Your task to perform on an android device: turn off priority inbox in the gmail app Image 0: 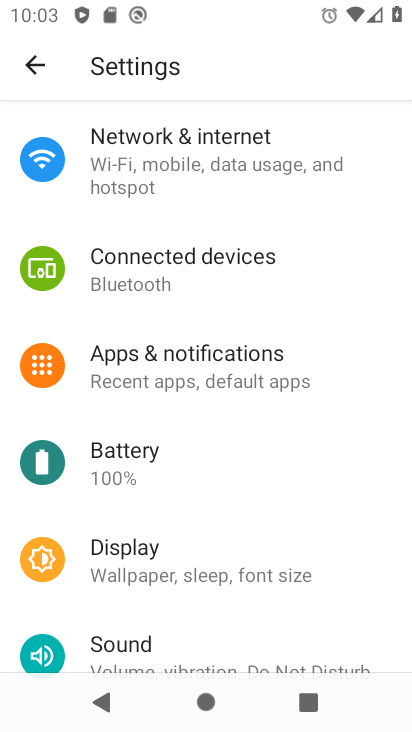
Step 0: press home button
Your task to perform on an android device: turn off priority inbox in the gmail app Image 1: 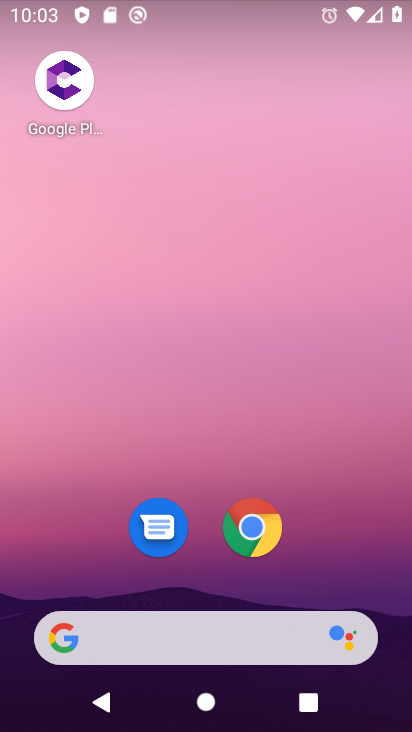
Step 1: drag from (219, 627) to (226, 163)
Your task to perform on an android device: turn off priority inbox in the gmail app Image 2: 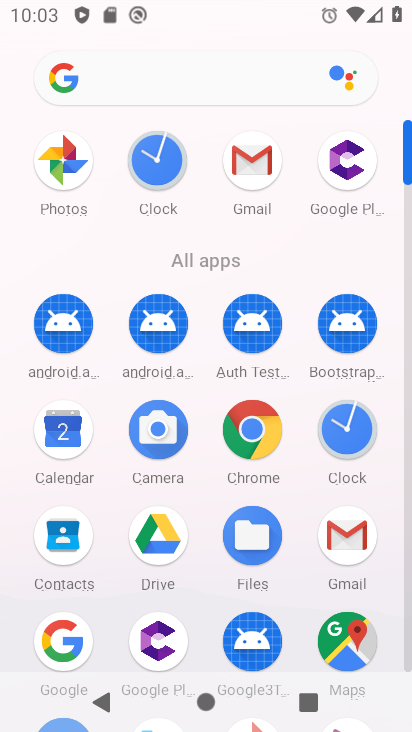
Step 2: click (253, 178)
Your task to perform on an android device: turn off priority inbox in the gmail app Image 3: 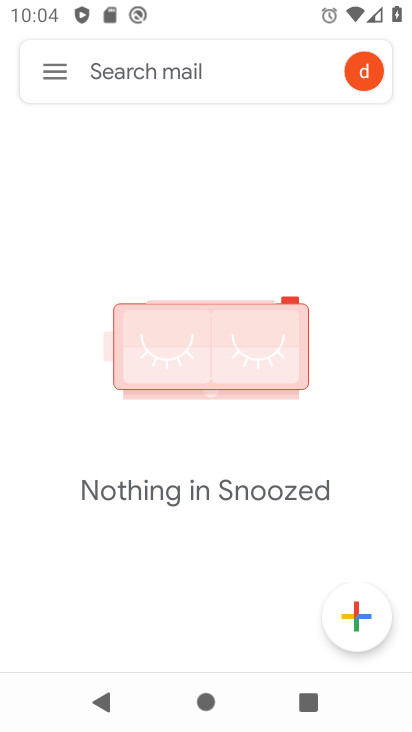
Step 3: click (50, 76)
Your task to perform on an android device: turn off priority inbox in the gmail app Image 4: 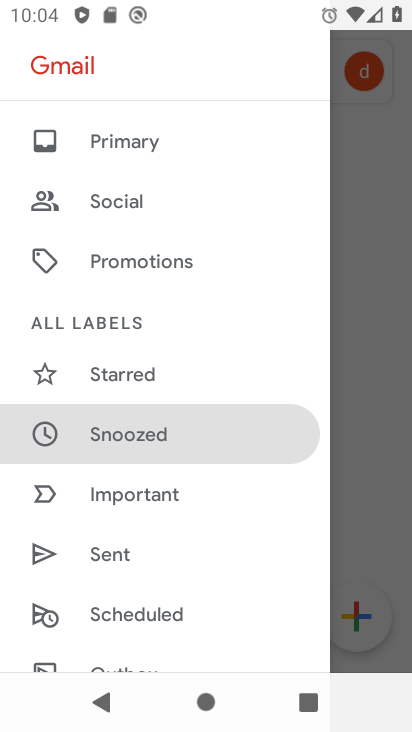
Step 4: drag from (119, 512) to (123, 35)
Your task to perform on an android device: turn off priority inbox in the gmail app Image 5: 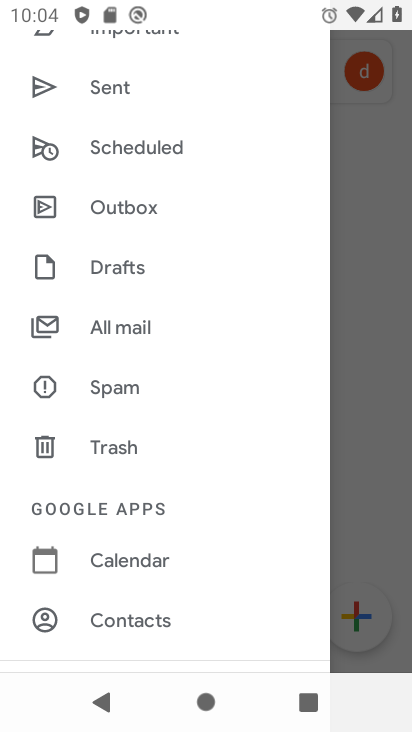
Step 5: drag from (115, 543) to (115, 25)
Your task to perform on an android device: turn off priority inbox in the gmail app Image 6: 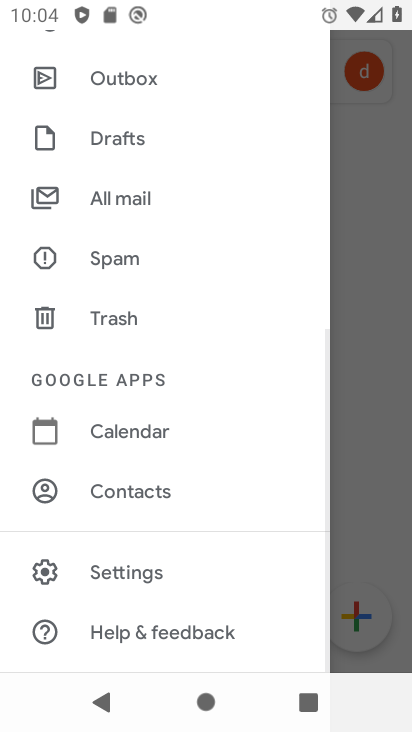
Step 6: click (112, 572)
Your task to perform on an android device: turn off priority inbox in the gmail app Image 7: 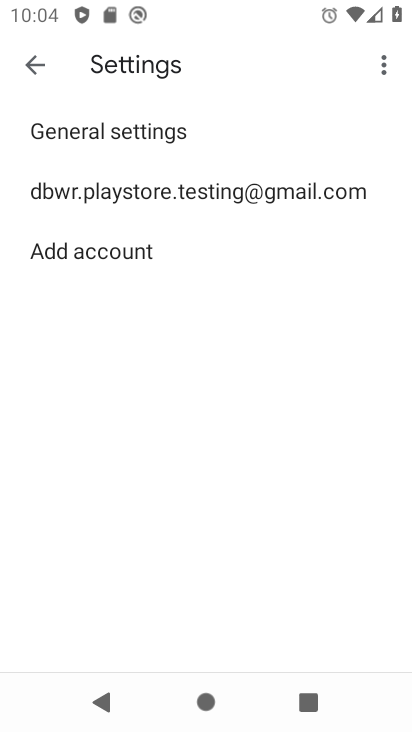
Step 7: click (107, 199)
Your task to perform on an android device: turn off priority inbox in the gmail app Image 8: 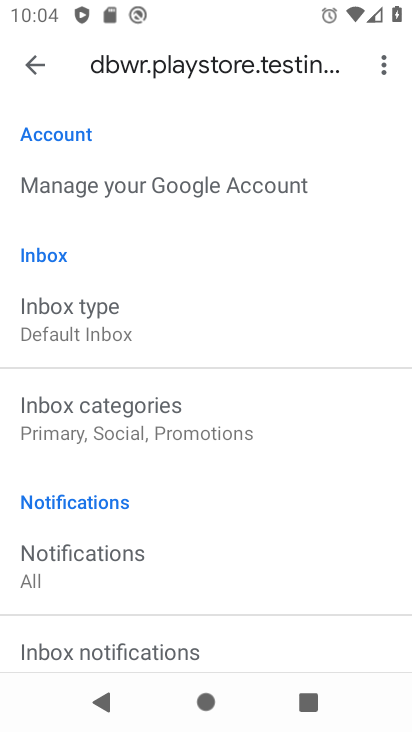
Step 8: drag from (156, 551) to (167, 353)
Your task to perform on an android device: turn off priority inbox in the gmail app Image 9: 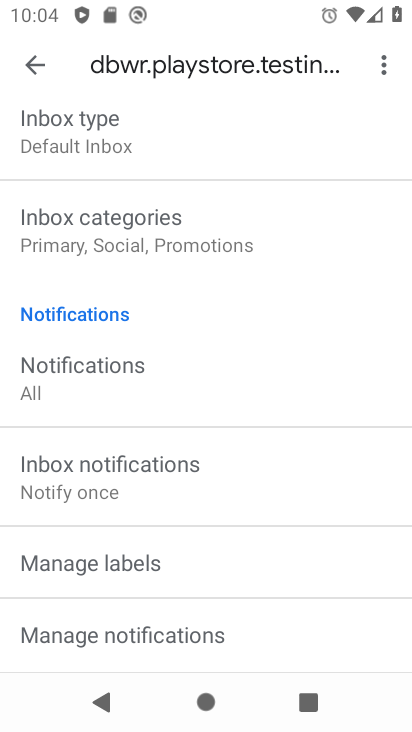
Step 9: click (95, 142)
Your task to perform on an android device: turn off priority inbox in the gmail app Image 10: 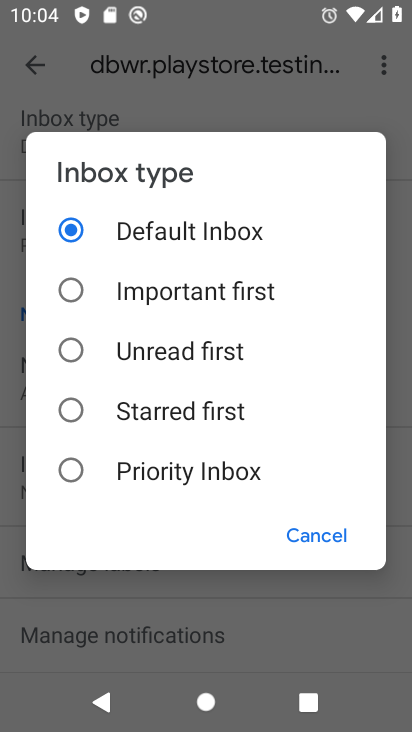
Step 10: click (132, 241)
Your task to perform on an android device: turn off priority inbox in the gmail app Image 11: 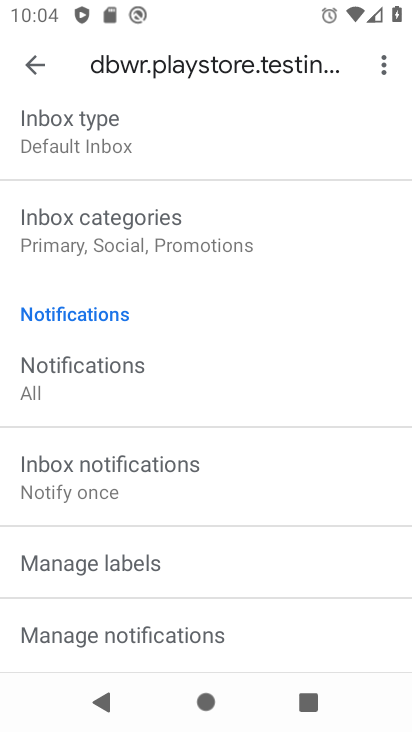
Step 11: task complete